Your task to perform on an android device: What's the weather going to be tomorrow? Image 0: 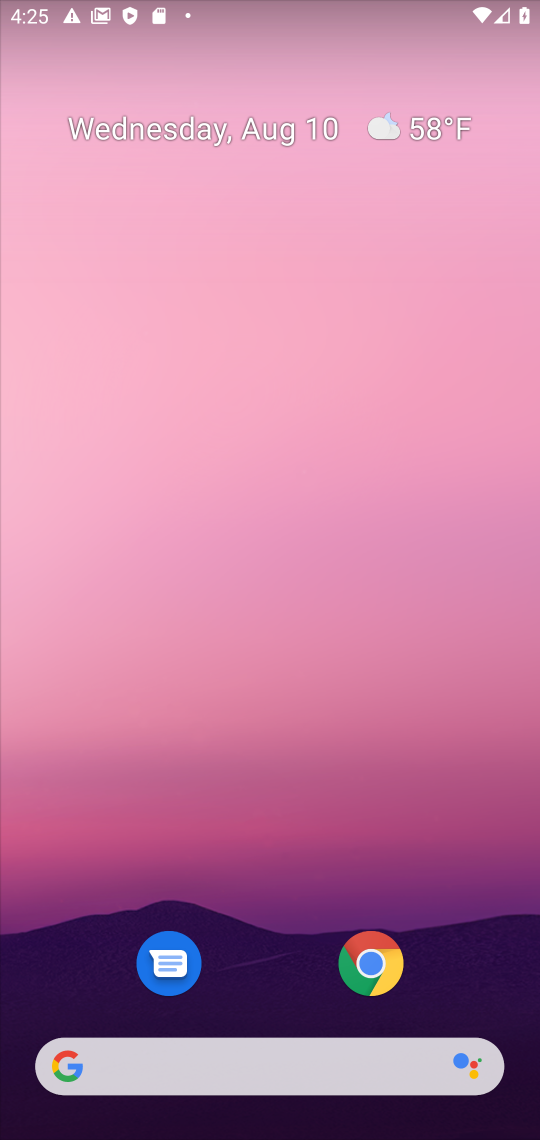
Step 0: drag from (238, 1009) to (356, 105)
Your task to perform on an android device: What's the weather going to be tomorrow? Image 1: 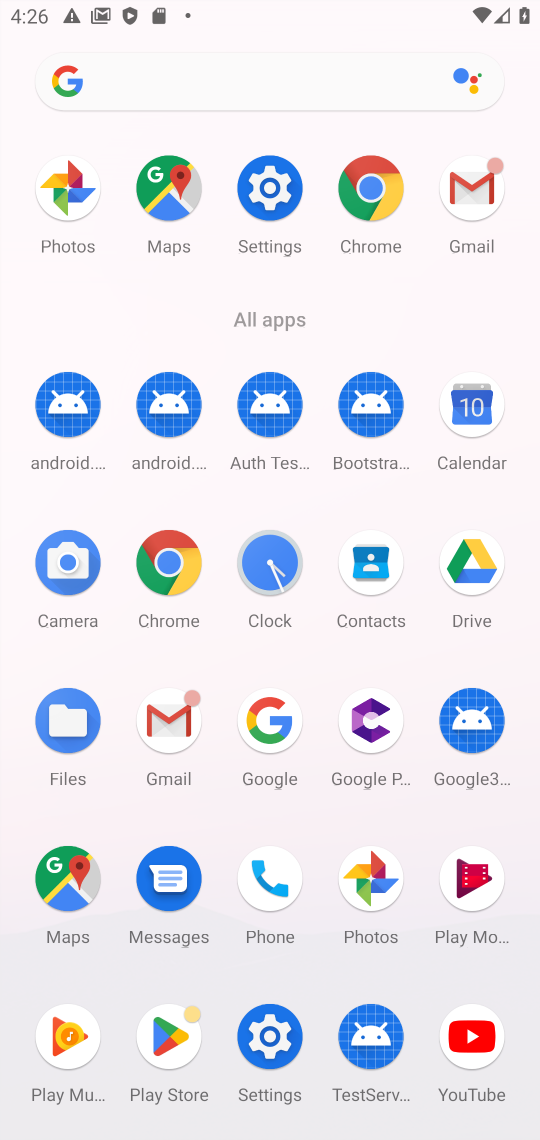
Step 1: click (65, 870)
Your task to perform on an android device: What's the weather going to be tomorrow? Image 2: 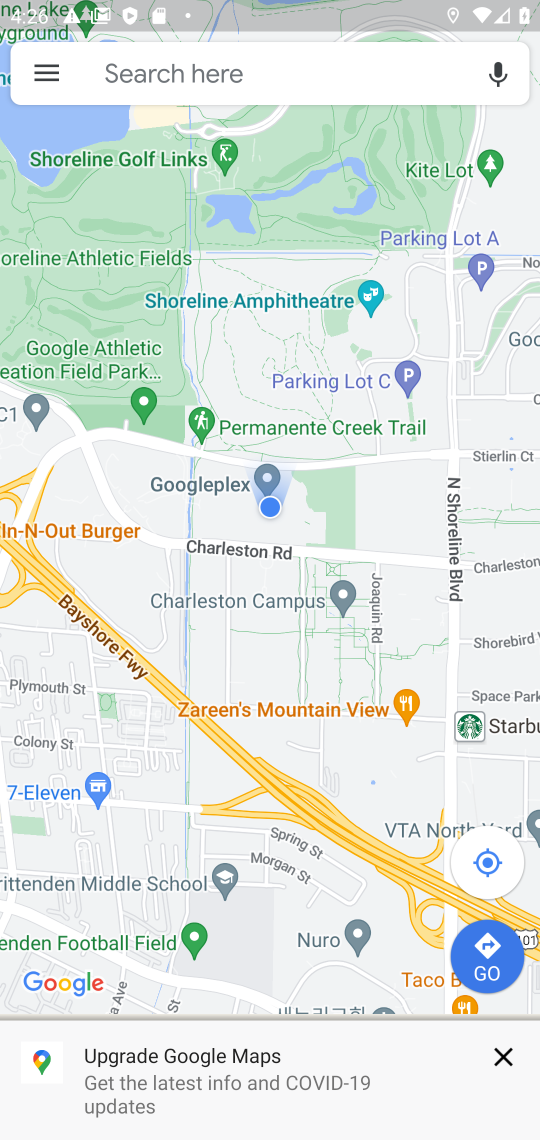
Step 2: press home button
Your task to perform on an android device: What's the weather going to be tomorrow? Image 3: 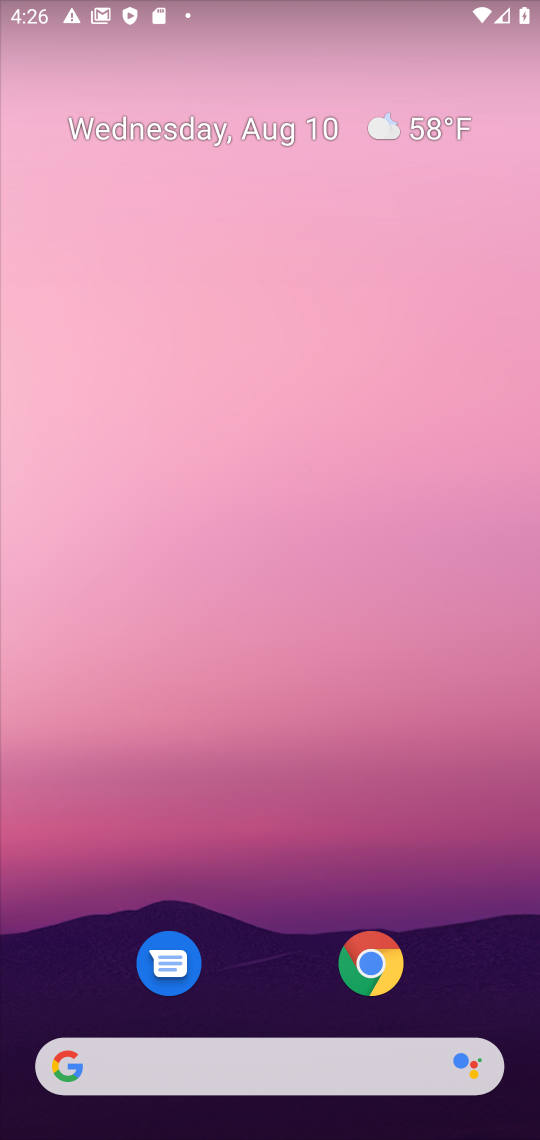
Step 3: drag from (286, 1009) to (333, 40)
Your task to perform on an android device: What's the weather going to be tomorrow? Image 4: 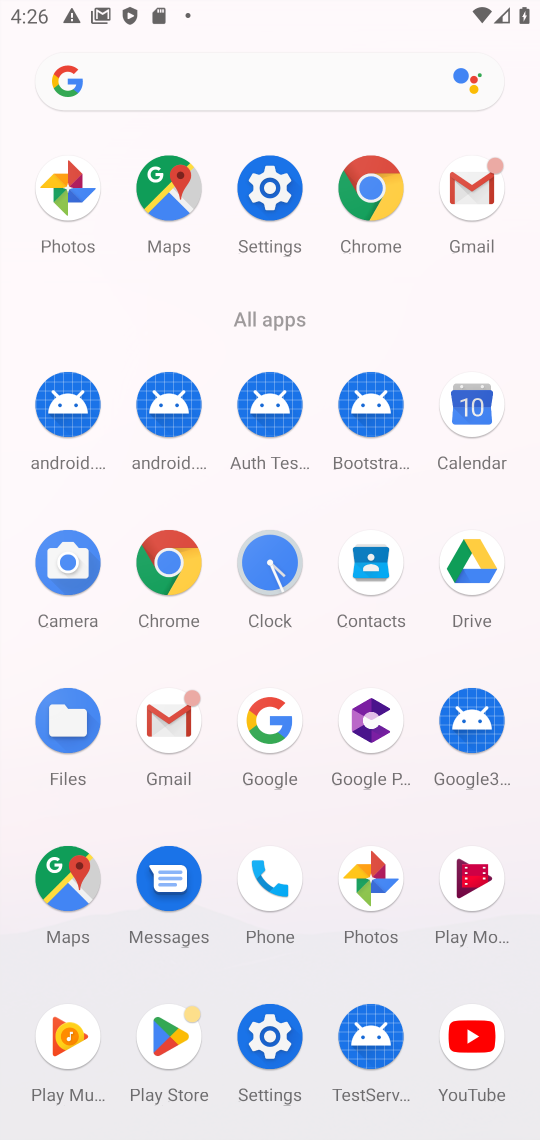
Step 4: click (391, 183)
Your task to perform on an android device: What's the weather going to be tomorrow? Image 5: 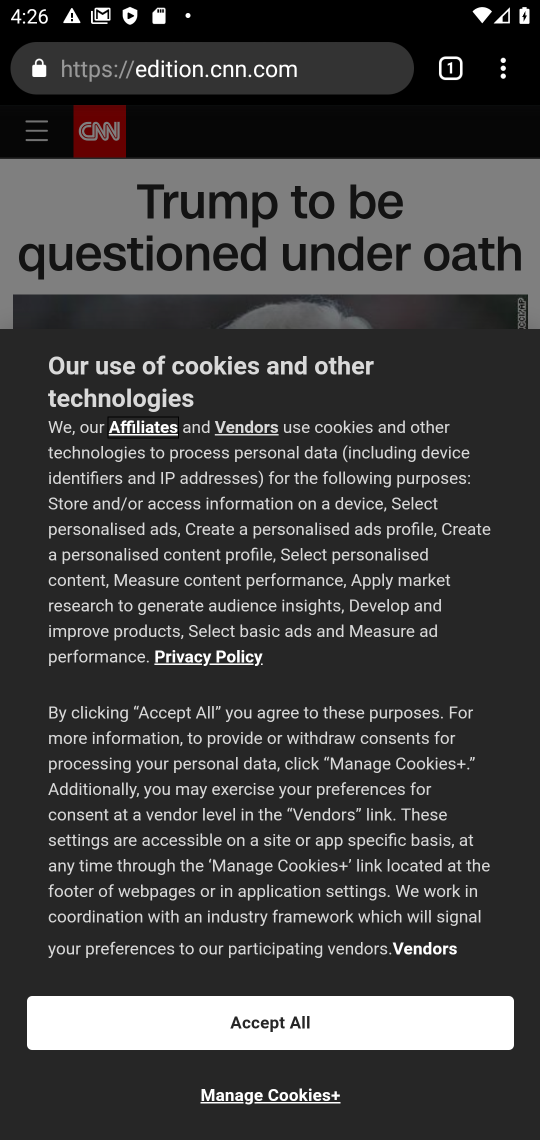
Step 5: click (303, 46)
Your task to perform on an android device: What's the weather going to be tomorrow? Image 6: 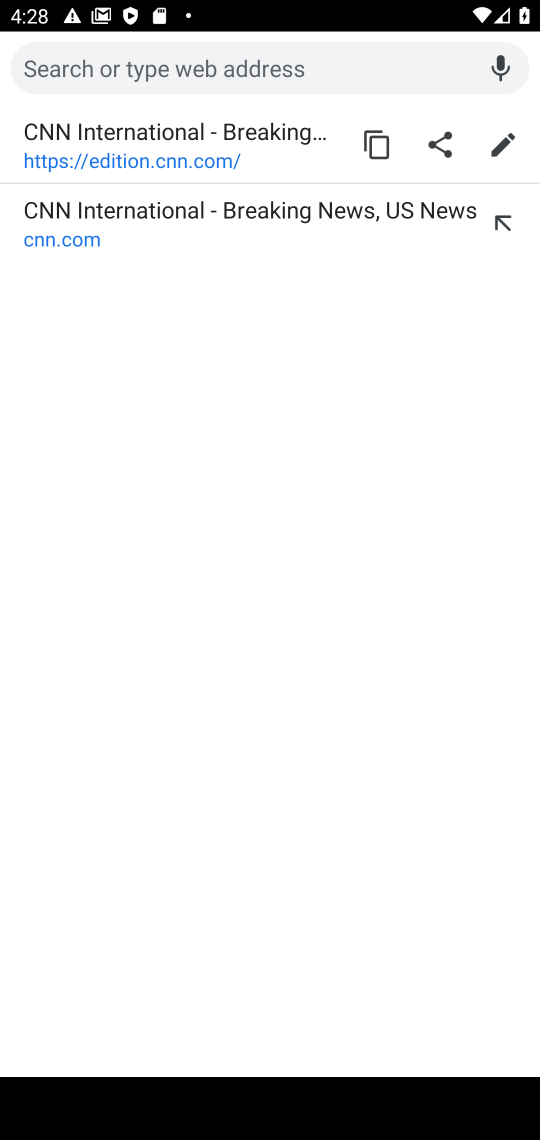
Step 6: type "What's the weather going to be tomorrow?"
Your task to perform on an android device: What's the weather going to be tomorrow? Image 7: 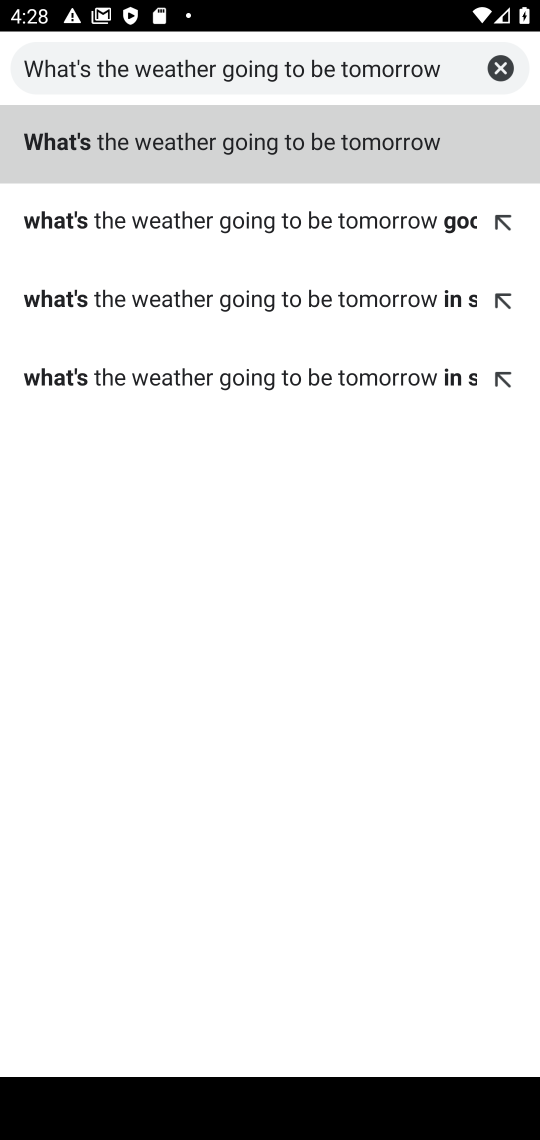
Step 7: click (218, 97)
Your task to perform on an android device: What's the weather going to be tomorrow? Image 8: 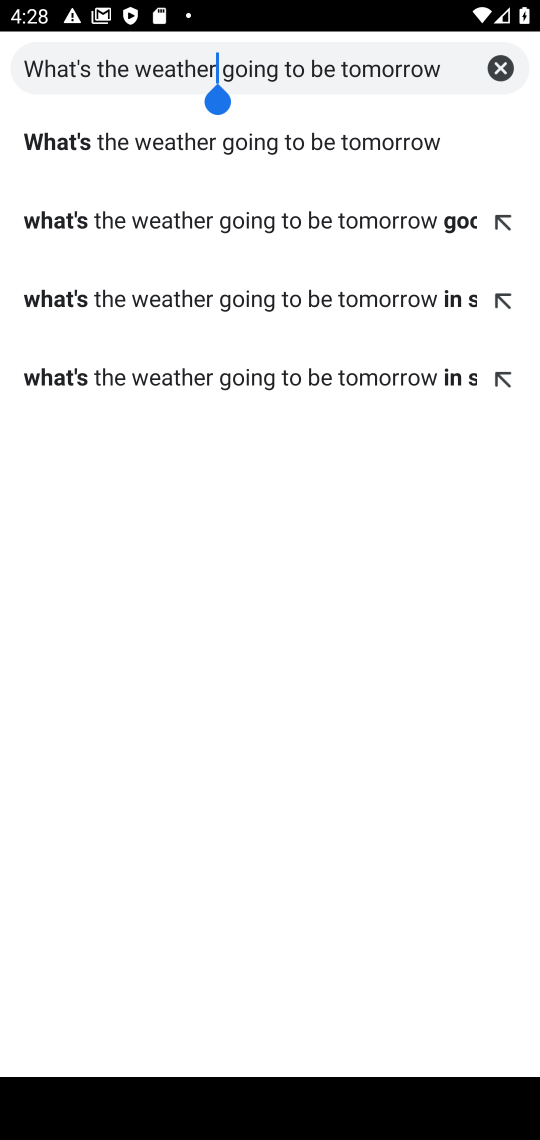
Step 8: click (231, 124)
Your task to perform on an android device: What's the weather going to be tomorrow? Image 9: 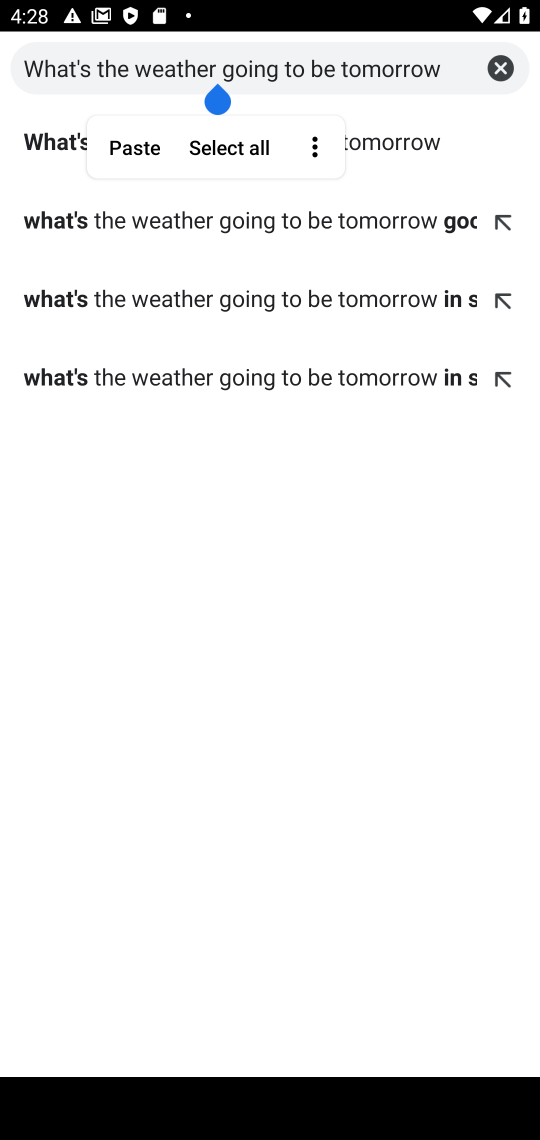
Step 9: click (382, 147)
Your task to perform on an android device: What's the weather going to be tomorrow? Image 10: 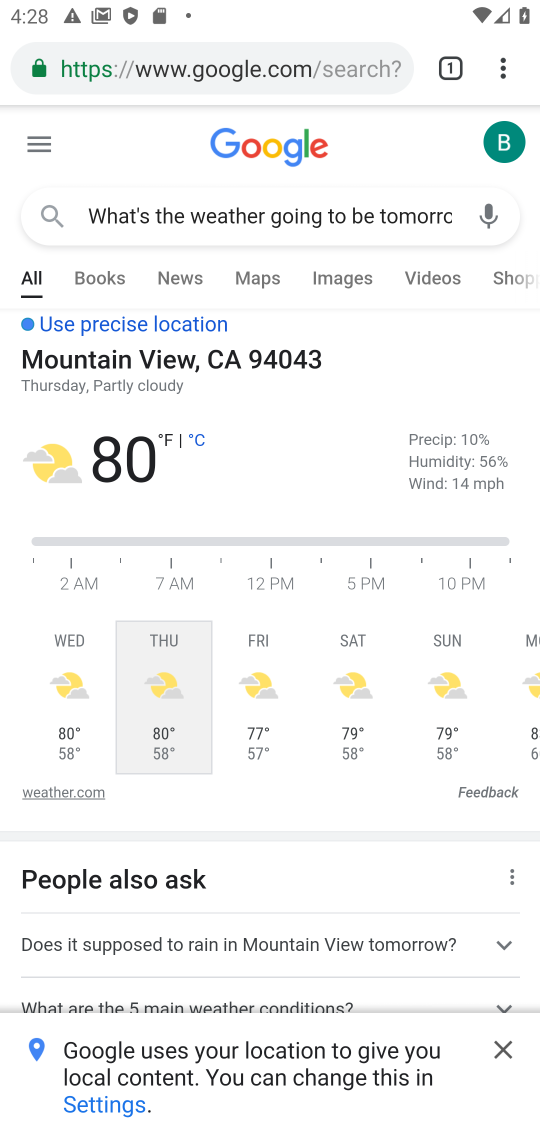
Step 10: task complete